Your task to perform on an android device: change text size in settings app Image 0: 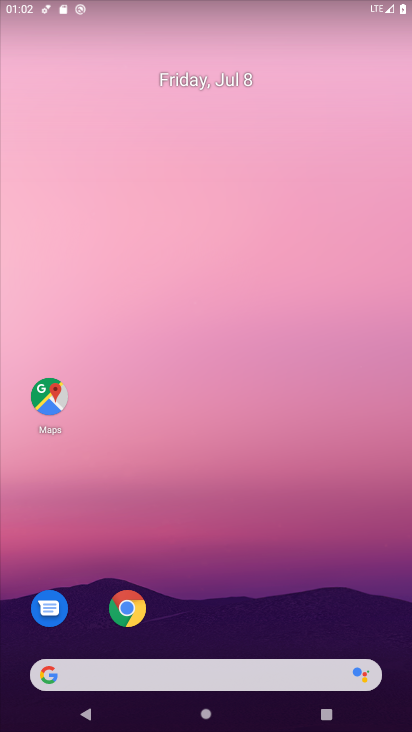
Step 0: drag from (247, 666) to (247, 391)
Your task to perform on an android device: change text size in settings app Image 1: 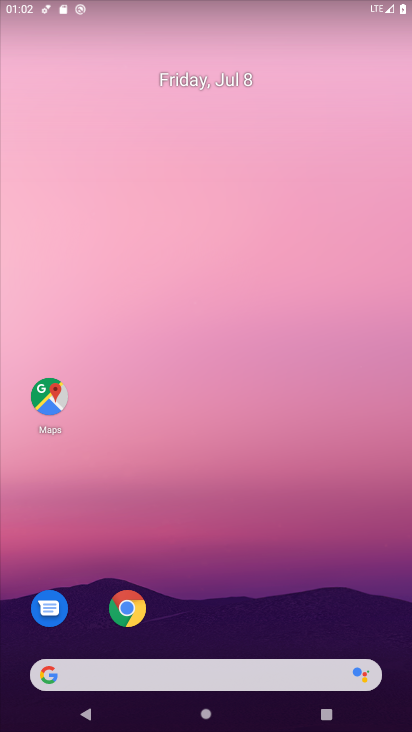
Step 1: drag from (212, 603) to (323, 139)
Your task to perform on an android device: change text size in settings app Image 2: 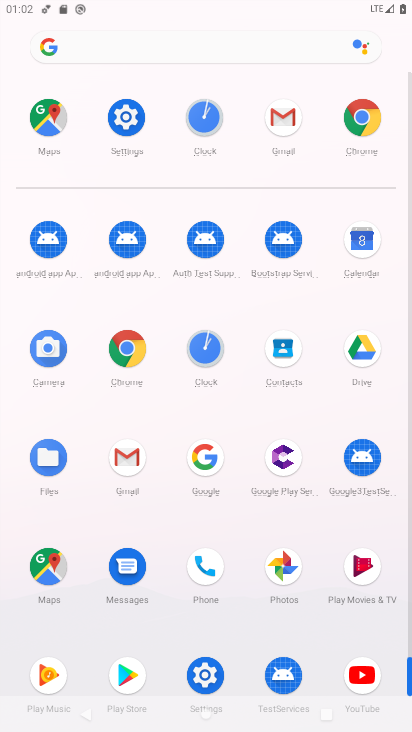
Step 2: click (122, 121)
Your task to perform on an android device: change text size in settings app Image 3: 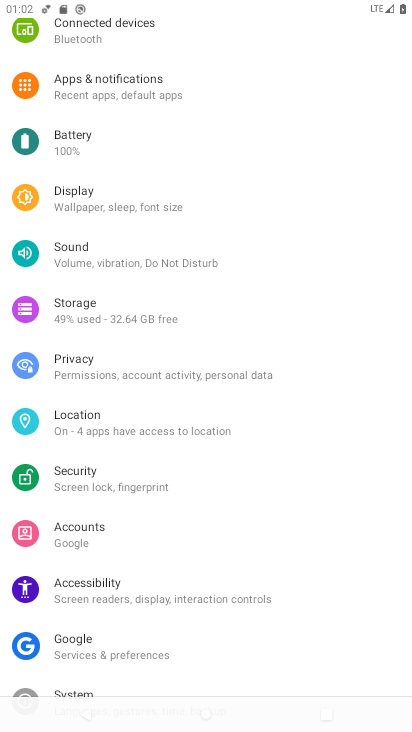
Step 3: drag from (140, 621) to (268, 374)
Your task to perform on an android device: change text size in settings app Image 4: 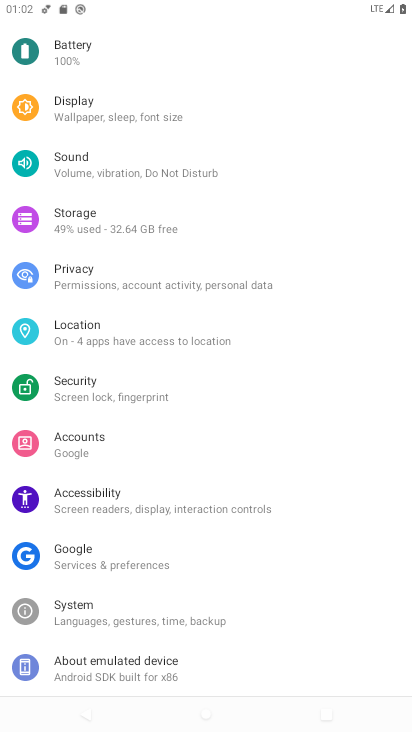
Step 4: click (119, 493)
Your task to perform on an android device: change text size in settings app Image 5: 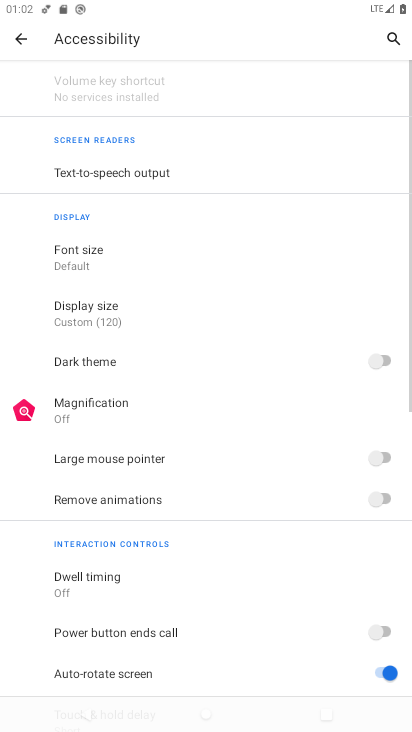
Step 5: click (110, 259)
Your task to perform on an android device: change text size in settings app Image 6: 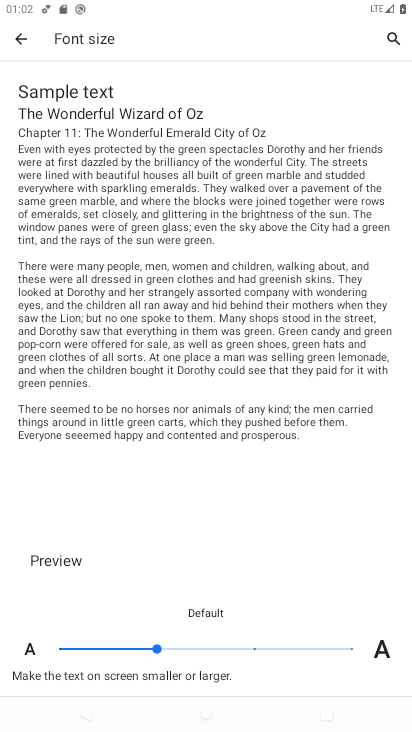
Step 6: click (196, 647)
Your task to perform on an android device: change text size in settings app Image 7: 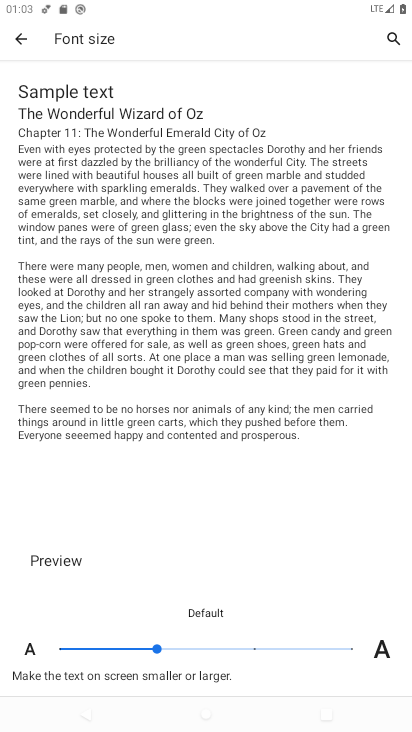
Step 7: click (263, 641)
Your task to perform on an android device: change text size in settings app Image 8: 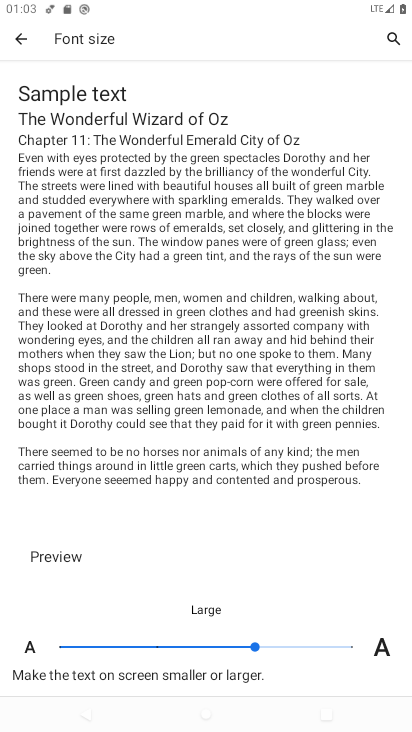
Step 8: task complete